Your task to perform on an android device: turn on wifi Image 0: 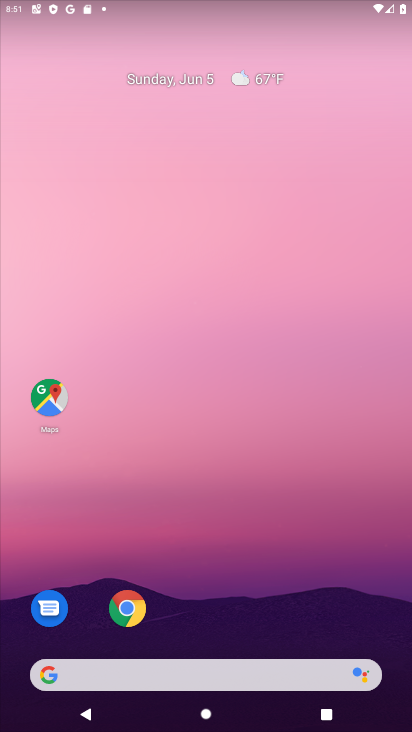
Step 0: press home button
Your task to perform on an android device: turn on wifi Image 1: 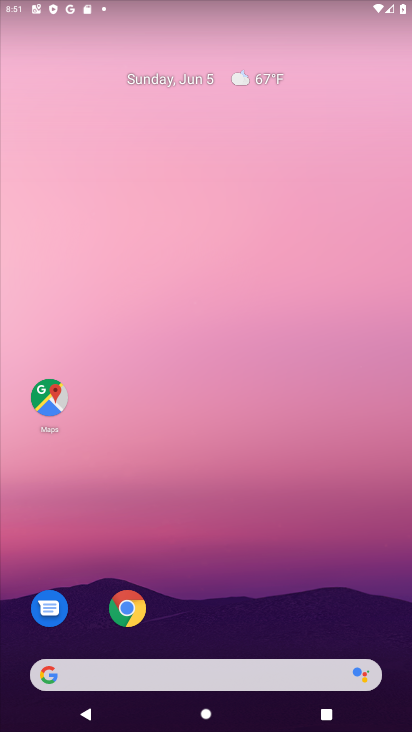
Step 1: drag from (207, 3) to (4, 424)
Your task to perform on an android device: turn on wifi Image 2: 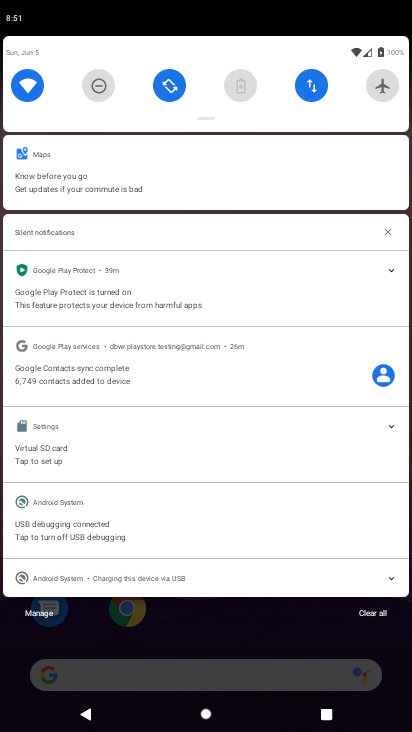
Step 2: click (27, 90)
Your task to perform on an android device: turn on wifi Image 3: 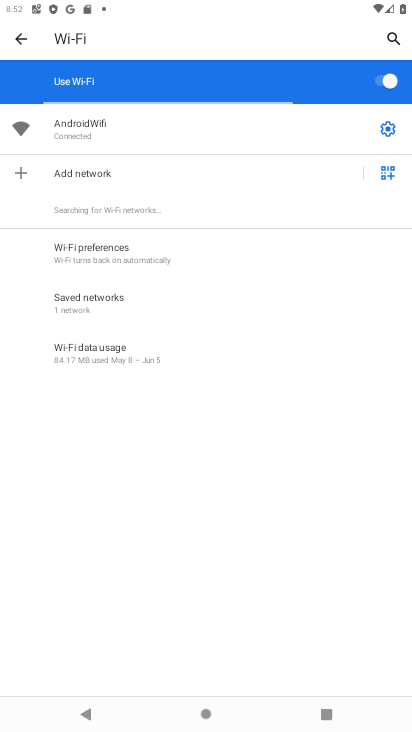
Step 3: task complete